Your task to perform on an android device: Open Yahoo.com Image 0: 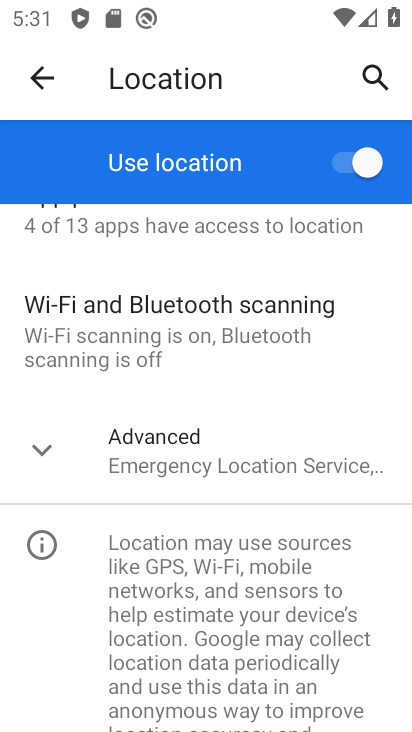
Step 0: press home button
Your task to perform on an android device: Open Yahoo.com Image 1: 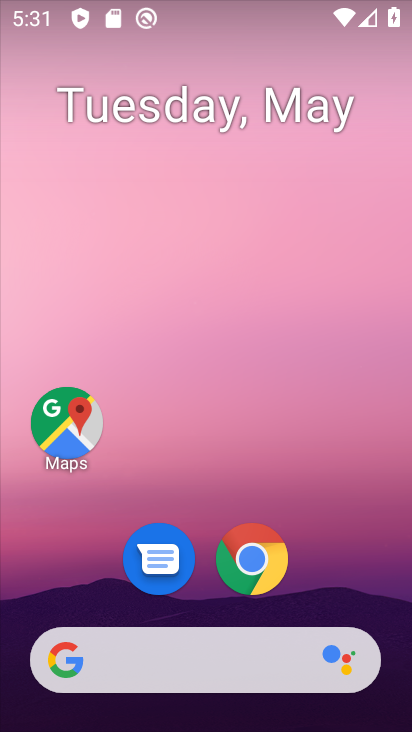
Step 1: click (250, 562)
Your task to perform on an android device: Open Yahoo.com Image 2: 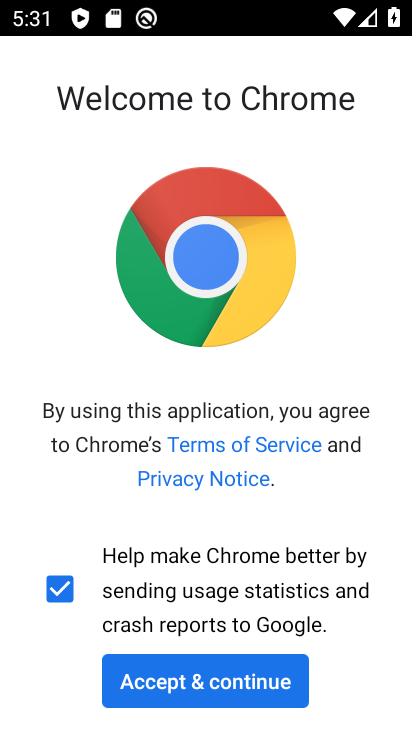
Step 2: click (183, 693)
Your task to perform on an android device: Open Yahoo.com Image 3: 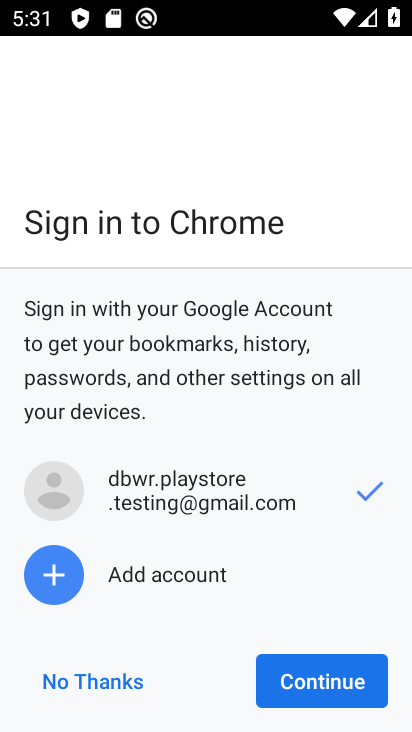
Step 3: click (329, 698)
Your task to perform on an android device: Open Yahoo.com Image 4: 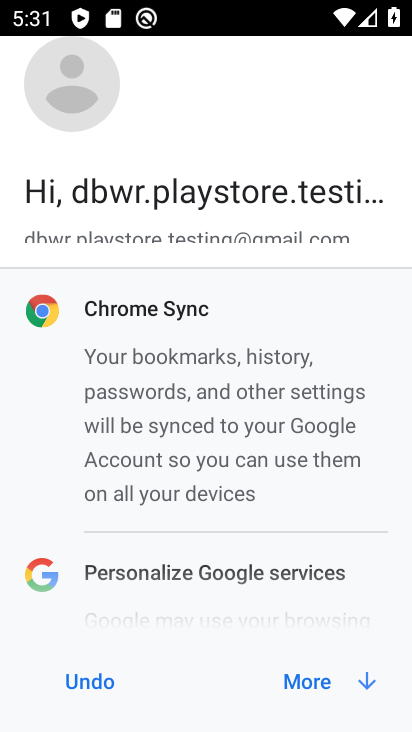
Step 4: click (291, 668)
Your task to perform on an android device: Open Yahoo.com Image 5: 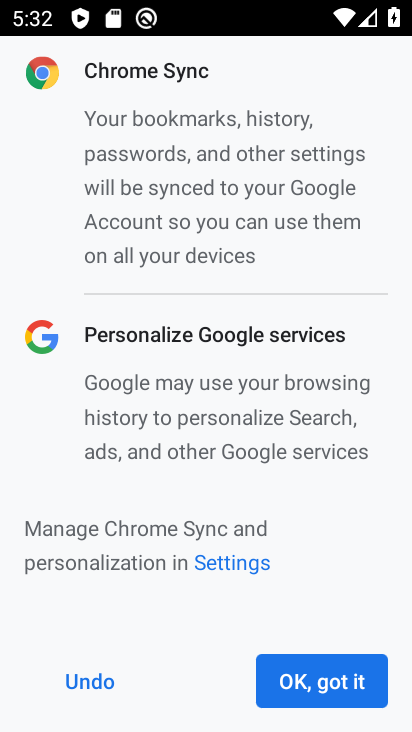
Step 5: click (347, 684)
Your task to perform on an android device: Open Yahoo.com Image 6: 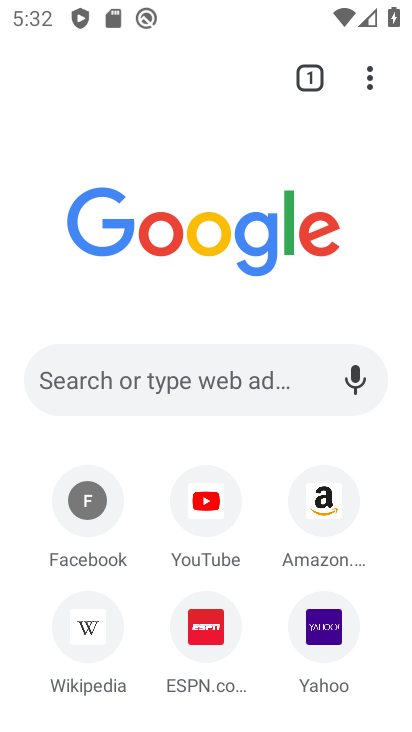
Step 6: click (330, 642)
Your task to perform on an android device: Open Yahoo.com Image 7: 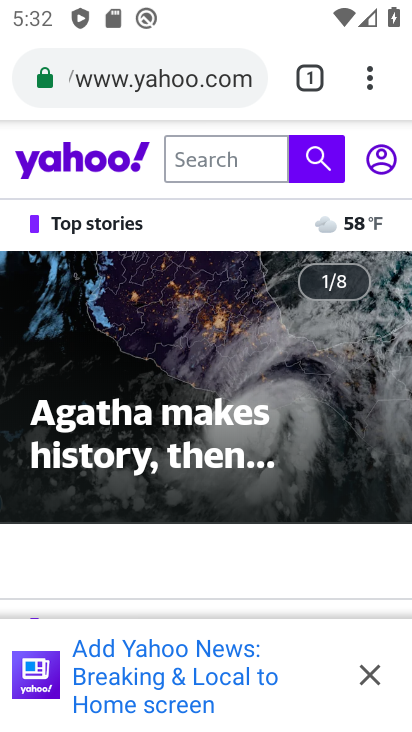
Step 7: task complete